Your task to perform on an android device: Open calendar and show me the first week of next month Image 0: 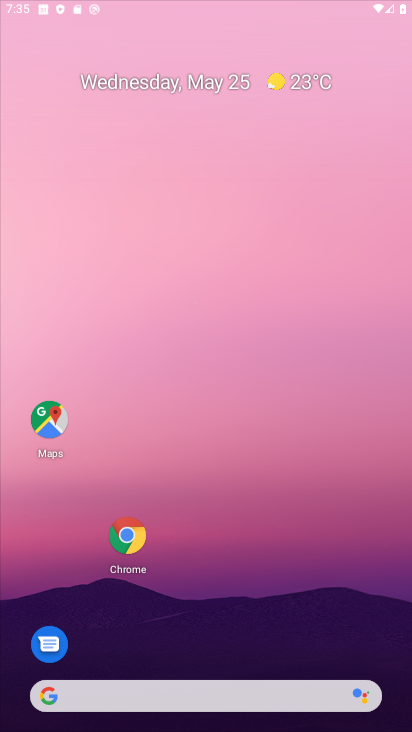
Step 0: click (171, 519)
Your task to perform on an android device: Open calendar and show me the first week of next month Image 1: 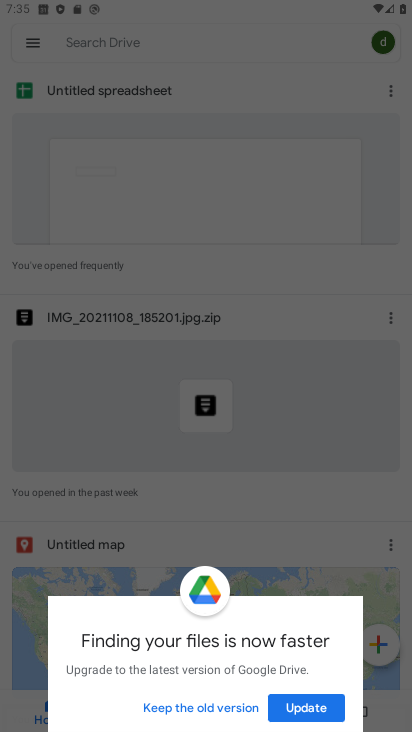
Step 1: press home button
Your task to perform on an android device: Open calendar and show me the first week of next month Image 2: 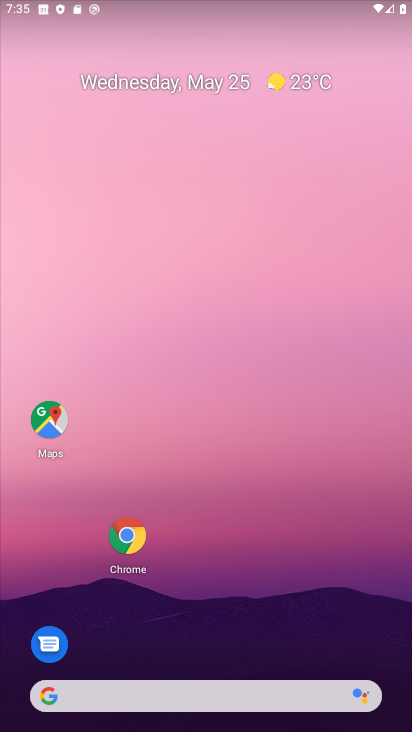
Step 2: press home button
Your task to perform on an android device: Open calendar and show me the first week of next month Image 3: 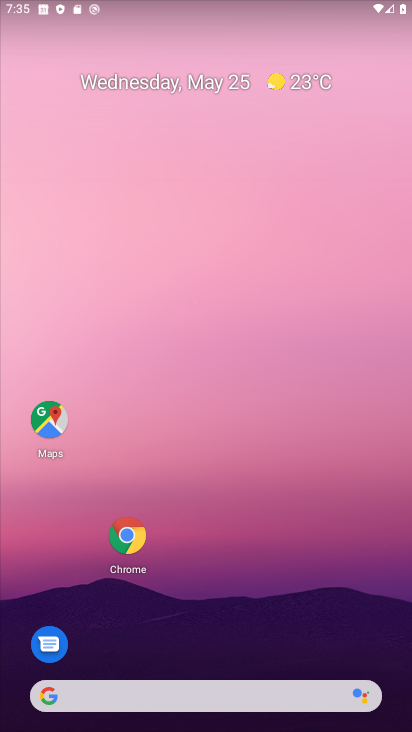
Step 3: drag from (236, 675) to (311, 7)
Your task to perform on an android device: Open calendar and show me the first week of next month Image 4: 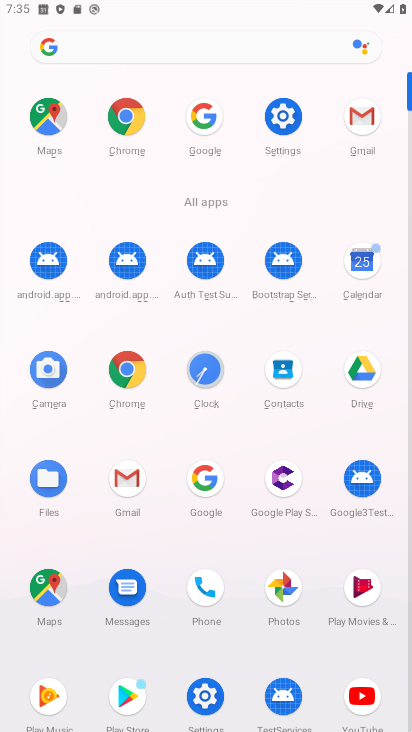
Step 4: click (375, 265)
Your task to perform on an android device: Open calendar and show me the first week of next month Image 5: 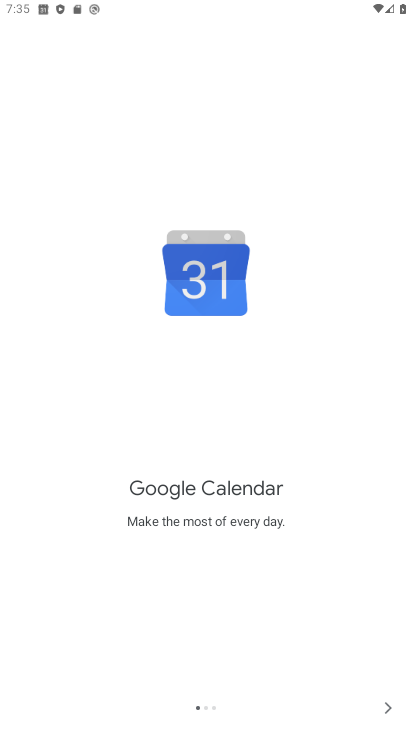
Step 5: click (204, 573)
Your task to perform on an android device: Open calendar and show me the first week of next month Image 6: 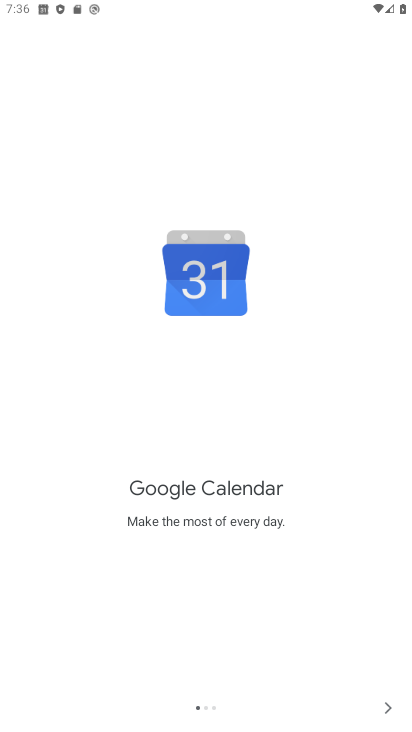
Step 6: click (404, 709)
Your task to perform on an android device: Open calendar and show me the first week of next month Image 7: 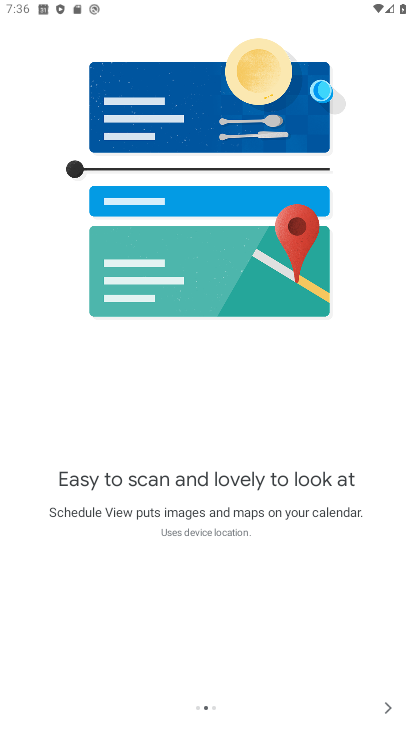
Step 7: click (386, 708)
Your task to perform on an android device: Open calendar and show me the first week of next month Image 8: 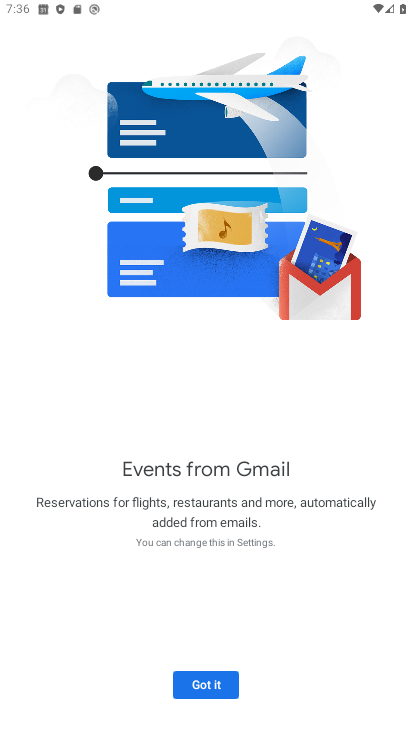
Step 8: click (215, 678)
Your task to perform on an android device: Open calendar and show me the first week of next month Image 9: 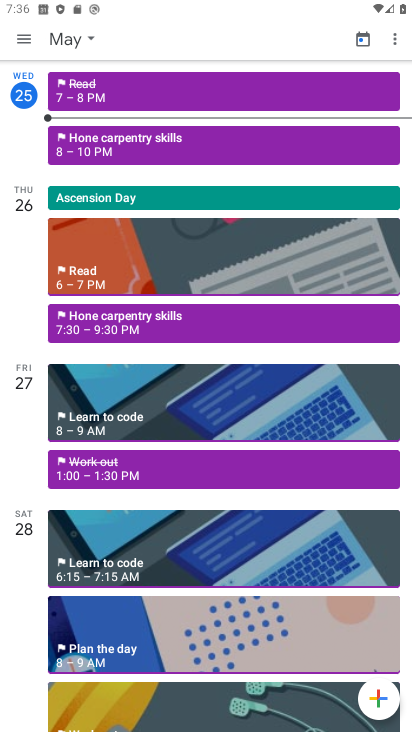
Step 9: click (30, 39)
Your task to perform on an android device: Open calendar and show me the first week of next month Image 10: 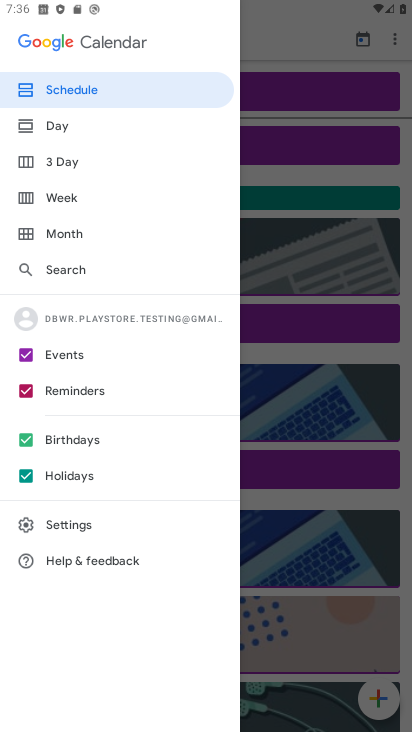
Step 10: click (75, 238)
Your task to perform on an android device: Open calendar and show me the first week of next month Image 11: 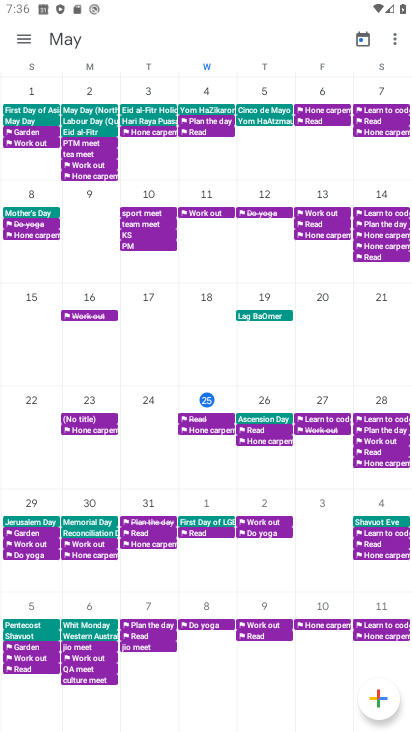
Step 11: task complete